Your task to perform on an android device: Search for sushi restaurants on Maps Image 0: 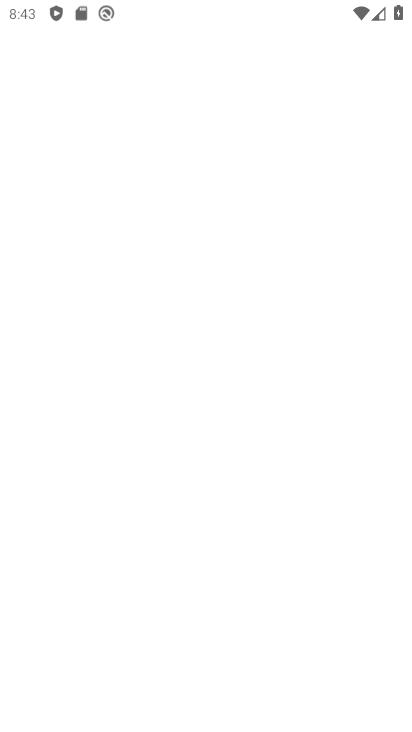
Step 0: press back button
Your task to perform on an android device: Search for sushi restaurants on Maps Image 1: 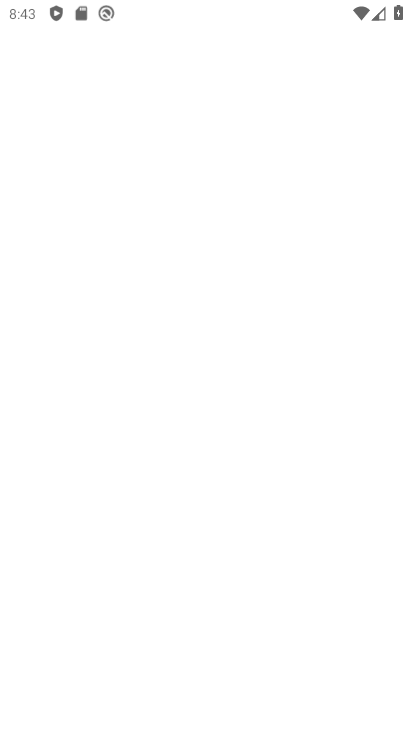
Step 1: press back button
Your task to perform on an android device: Search for sushi restaurants on Maps Image 2: 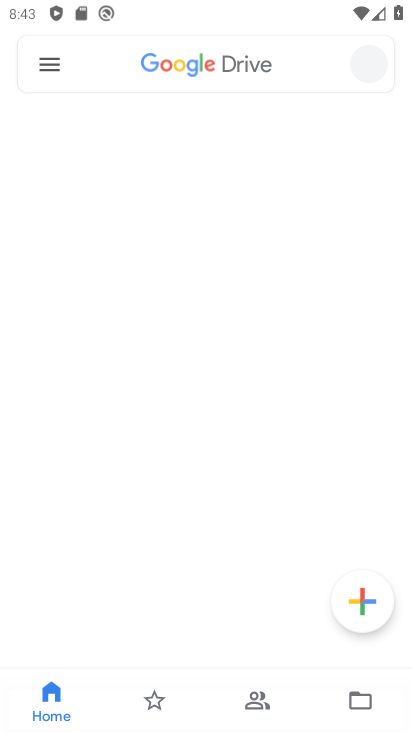
Step 2: press home button
Your task to perform on an android device: Search for sushi restaurants on Maps Image 3: 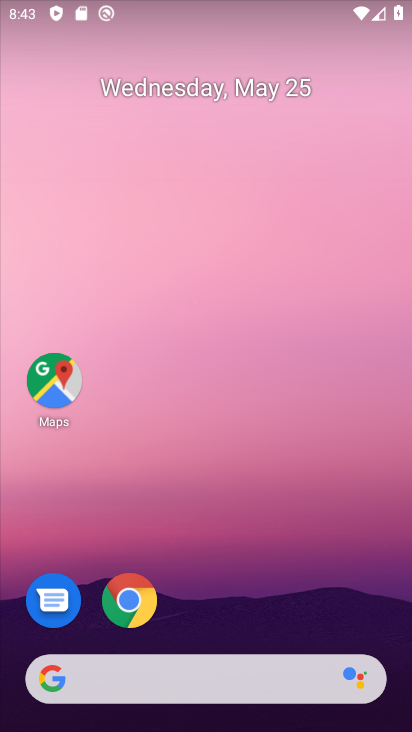
Step 3: drag from (221, 598) to (182, 76)
Your task to perform on an android device: Search for sushi restaurants on Maps Image 4: 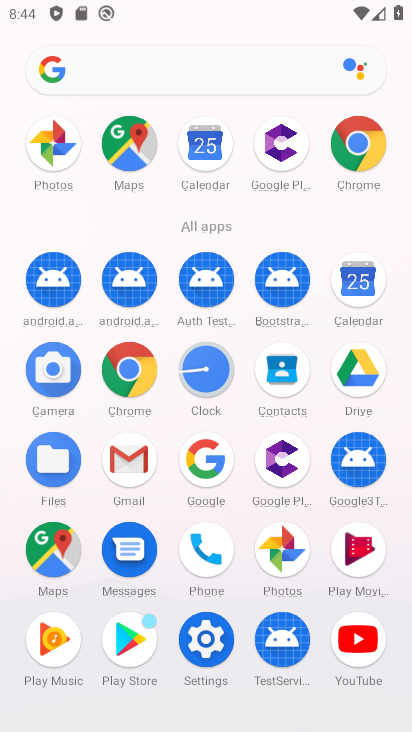
Step 4: click (51, 543)
Your task to perform on an android device: Search for sushi restaurants on Maps Image 5: 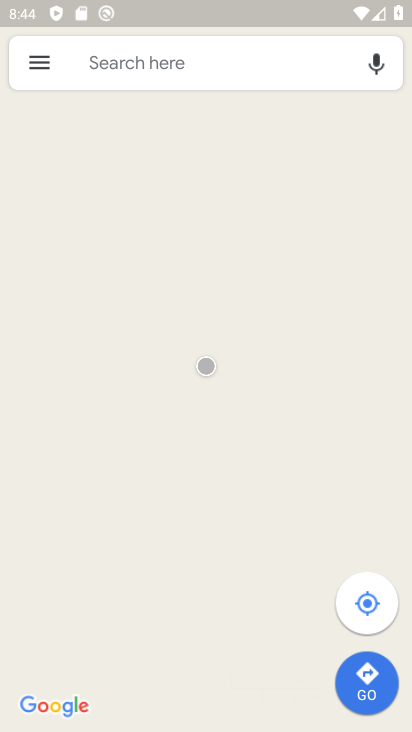
Step 5: click (187, 63)
Your task to perform on an android device: Search for sushi restaurants on Maps Image 6: 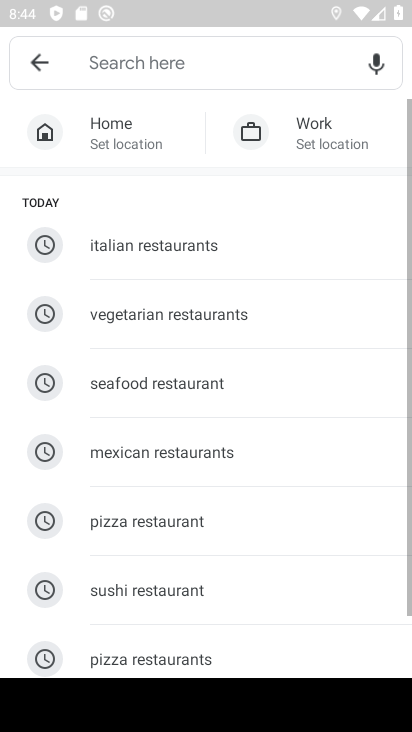
Step 6: type "sushi restaurants"
Your task to perform on an android device: Search for sushi restaurants on Maps Image 7: 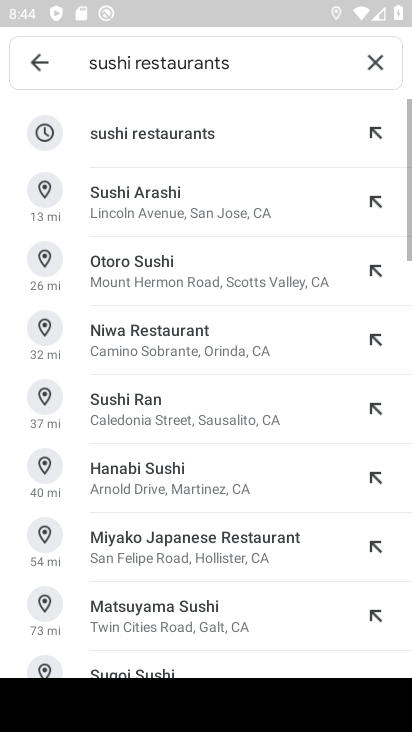
Step 7: click (210, 143)
Your task to perform on an android device: Search for sushi restaurants on Maps Image 8: 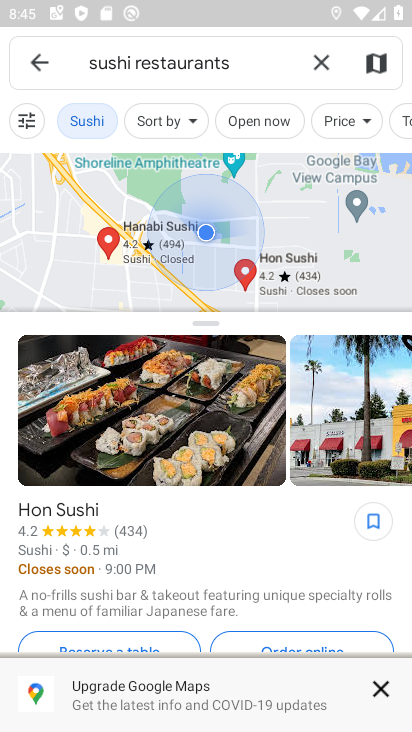
Step 8: task complete